Your task to perform on an android device: turn vacation reply on in the gmail app Image 0: 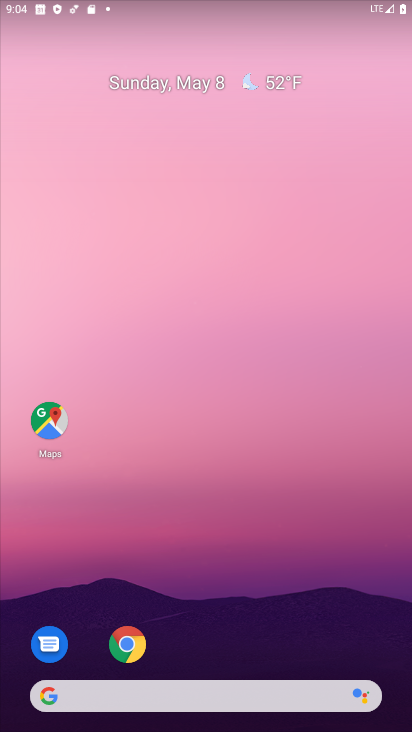
Step 0: drag from (207, 503) to (230, 201)
Your task to perform on an android device: turn vacation reply on in the gmail app Image 1: 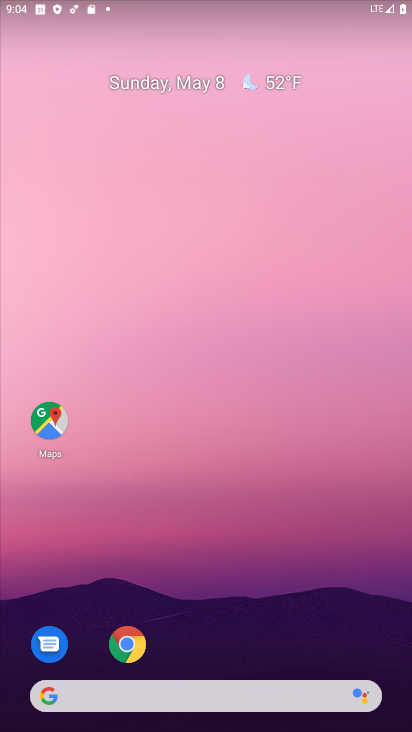
Step 1: drag from (222, 513) to (293, 105)
Your task to perform on an android device: turn vacation reply on in the gmail app Image 2: 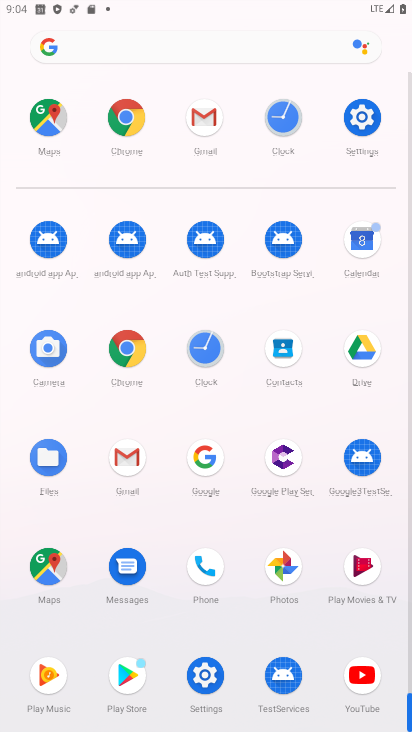
Step 2: click (115, 461)
Your task to perform on an android device: turn vacation reply on in the gmail app Image 3: 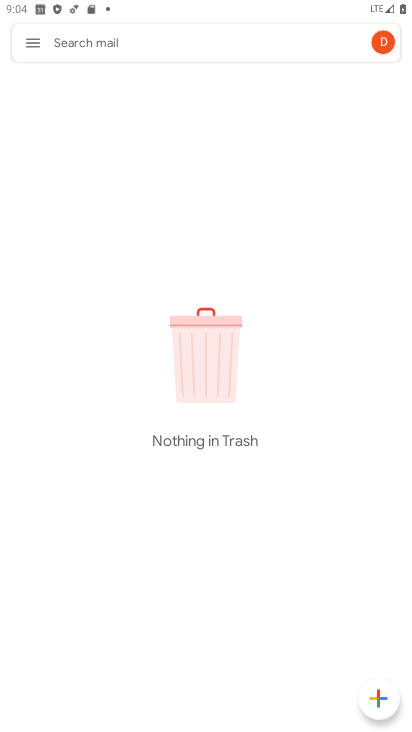
Step 3: drag from (205, 622) to (196, 351)
Your task to perform on an android device: turn vacation reply on in the gmail app Image 4: 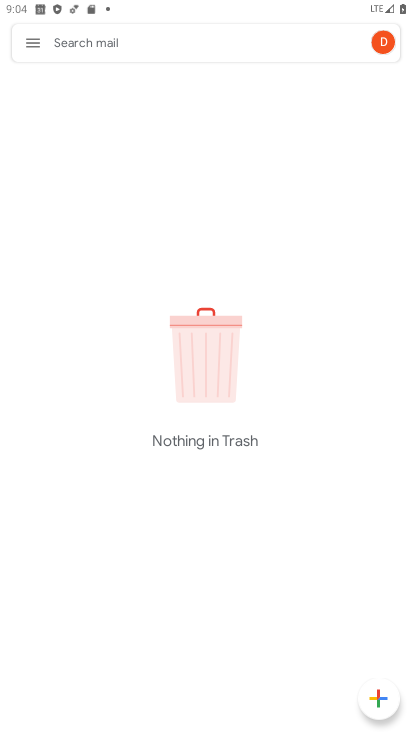
Step 4: click (30, 46)
Your task to perform on an android device: turn vacation reply on in the gmail app Image 5: 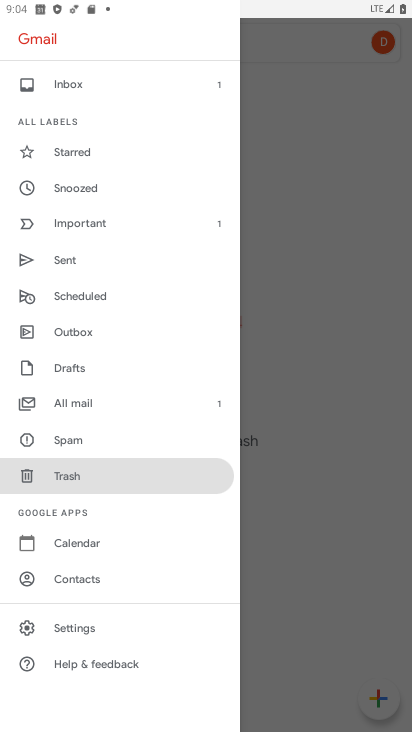
Step 5: drag from (85, 579) to (146, 302)
Your task to perform on an android device: turn vacation reply on in the gmail app Image 6: 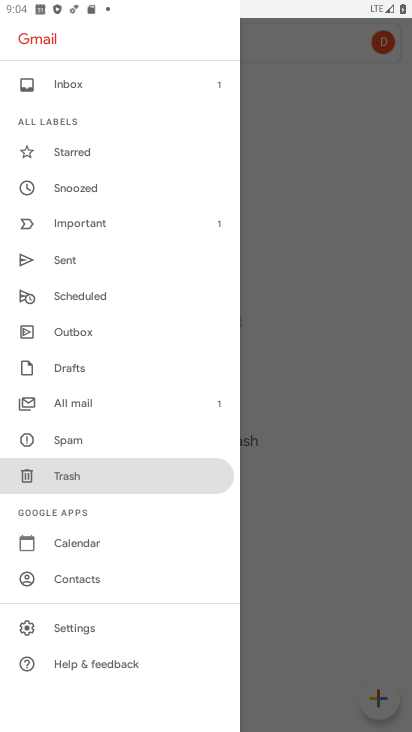
Step 6: click (81, 625)
Your task to perform on an android device: turn vacation reply on in the gmail app Image 7: 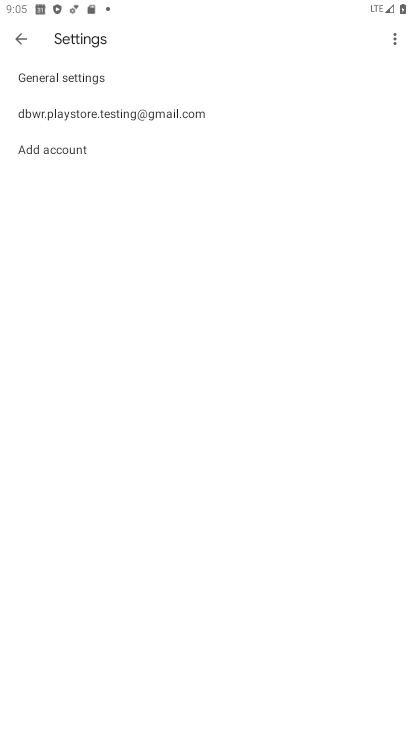
Step 7: click (112, 113)
Your task to perform on an android device: turn vacation reply on in the gmail app Image 8: 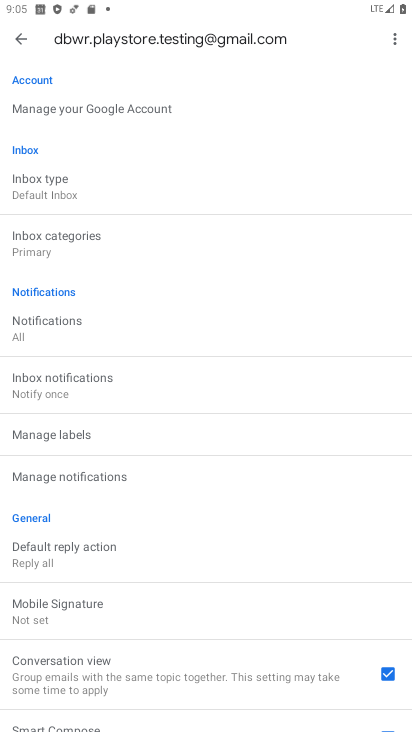
Step 8: drag from (152, 538) to (212, 49)
Your task to perform on an android device: turn vacation reply on in the gmail app Image 9: 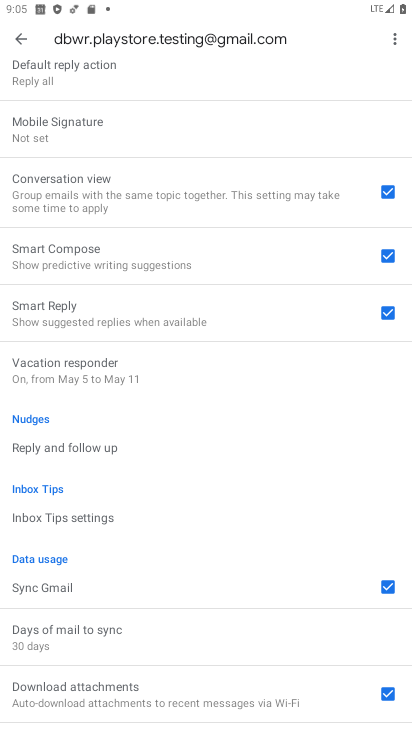
Step 9: click (130, 372)
Your task to perform on an android device: turn vacation reply on in the gmail app Image 10: 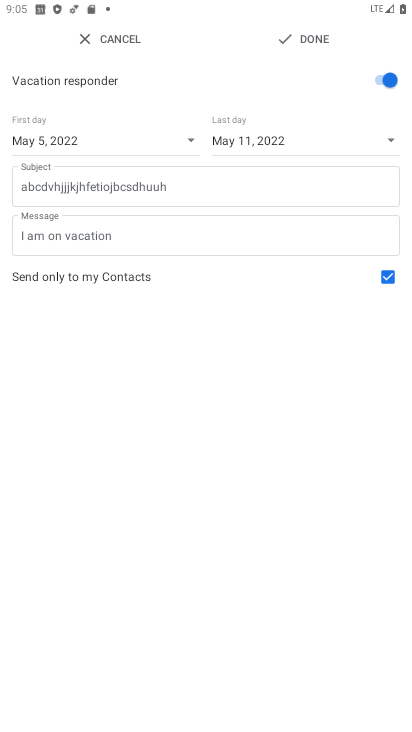
Step 10: click (295, 47)
Your task to perform on an android device: turn vacation reply on in the gmail app Image 11: 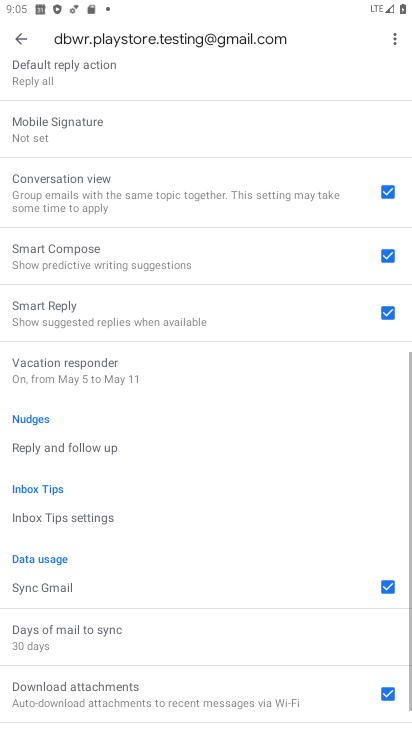
Step 11: task complete